Your task to perform on an android device: toggle priority inbox in the gmail app Image 0: 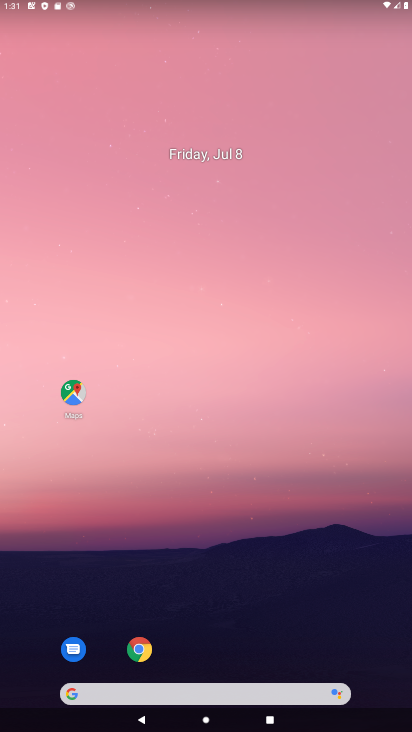
Step 0: drag from (30, 705) to (246, 13)
Your task to perform on an android device: toggle priority inbox in the gmail app Image 1: 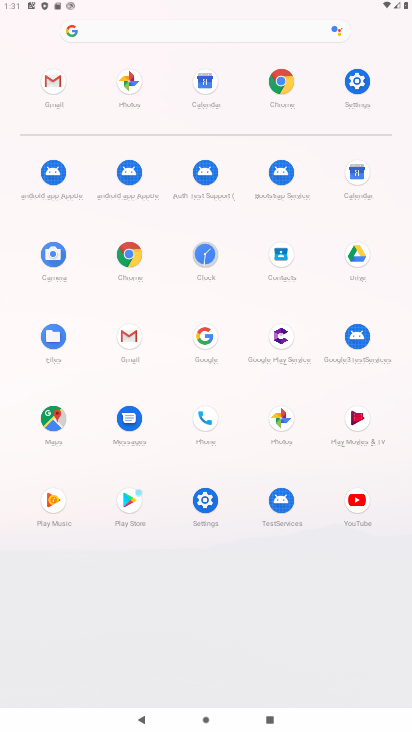
Step 1: click (126, 336)
Your task to perform on an android device: toggle priority inbox in the gmail app Image 2: 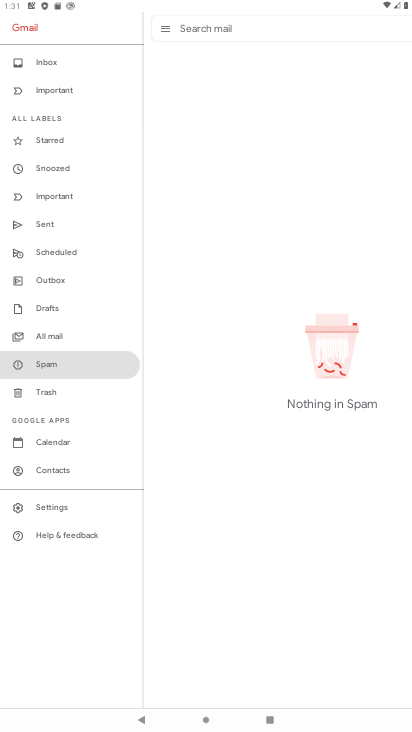
Step 2: click (50, 64)
Your task to perform on an android device: toggle priority inbox in the gmail app Image 3: 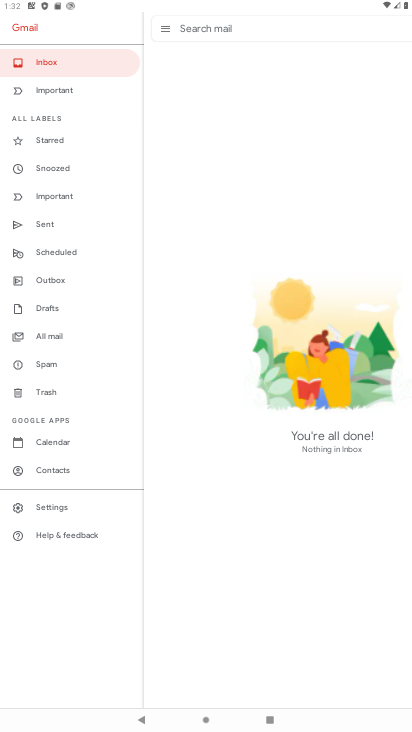
Step 3: task complete